Your task to perform on an android device: toggle location history Image 0: 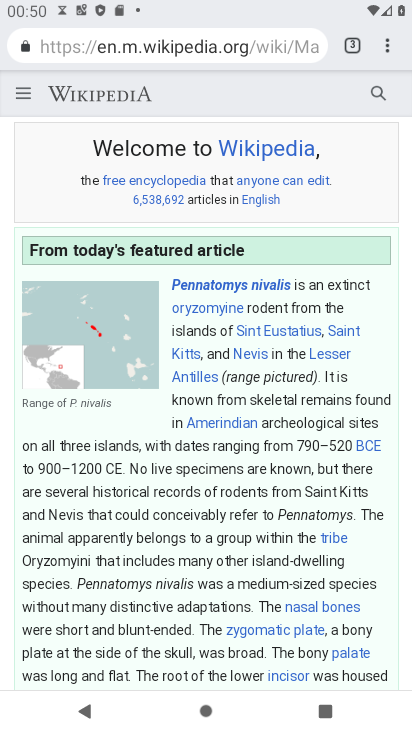
Step 0: press back button
Your task to perform on an android device: toggle location history Image 1: 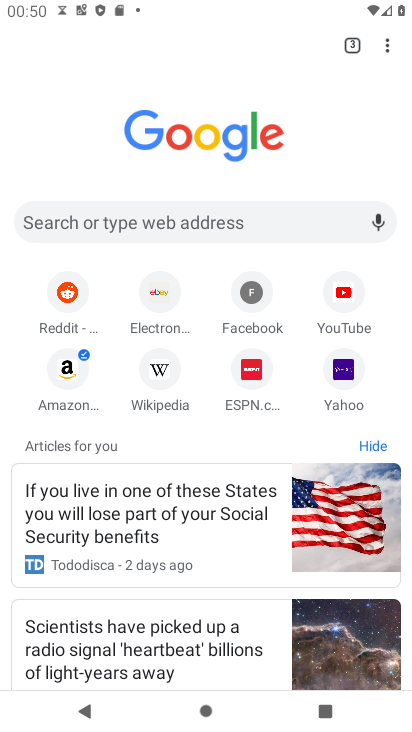
Step 1: press back button
Your task to perform on an android device: toggle location history Image 2: 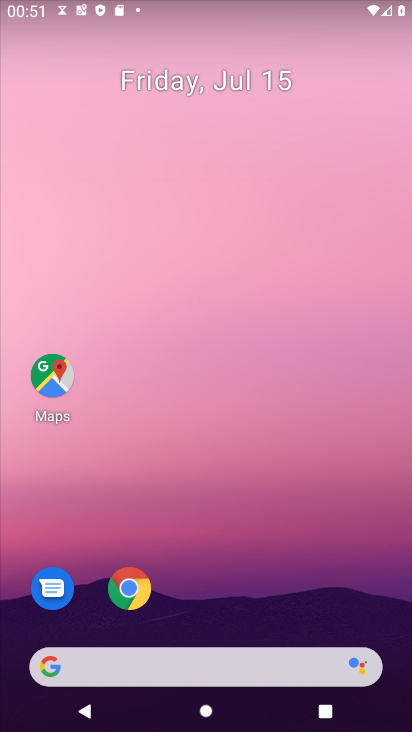
Step 2: drag from (207, 590) to (270, 77)
Your task to perform on an android device: toggle location history Image 3: 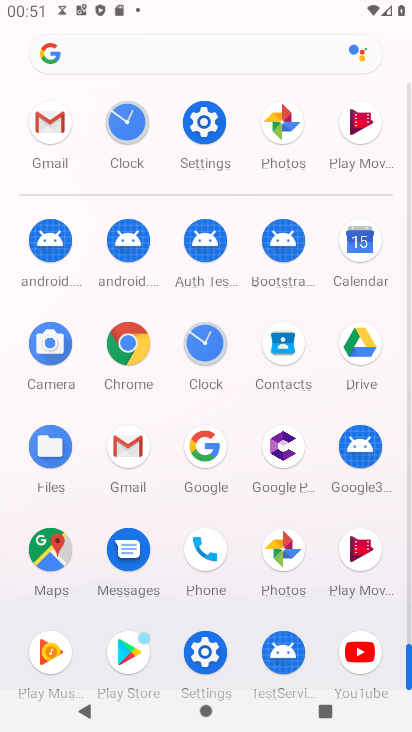
Step 3: click (205, 108)
Your task to perform on an android device: toggle location history Image 4: 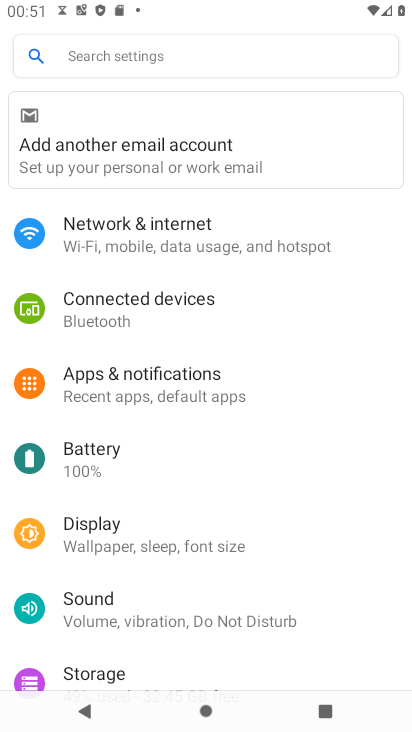
Step 4: drag from (146, 561) to (271, 72)
Your task to perform on an android device: toggle location history Image 5: 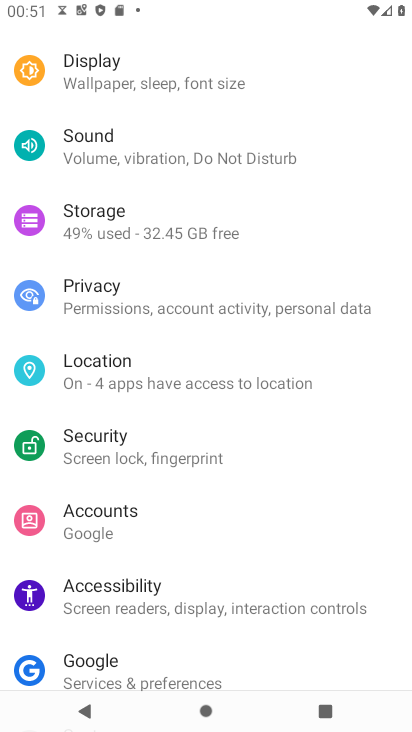
Step 5: click (110, 372)
Your task to perform on an android device: toggle location history Image 6: 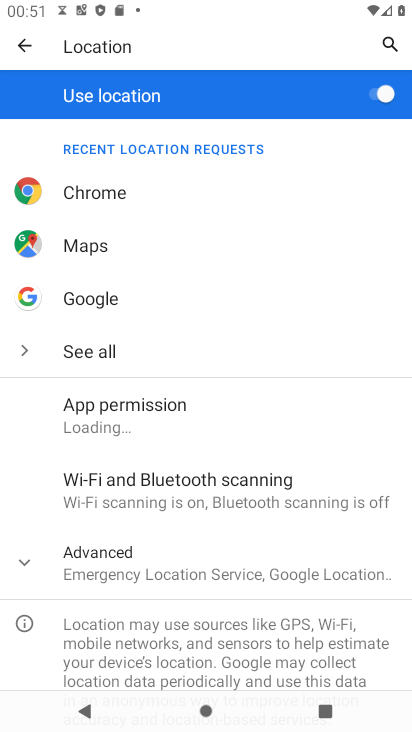
Step 6: click (140, 572)
Your task to perform on an android device: toggle location history Image 7: 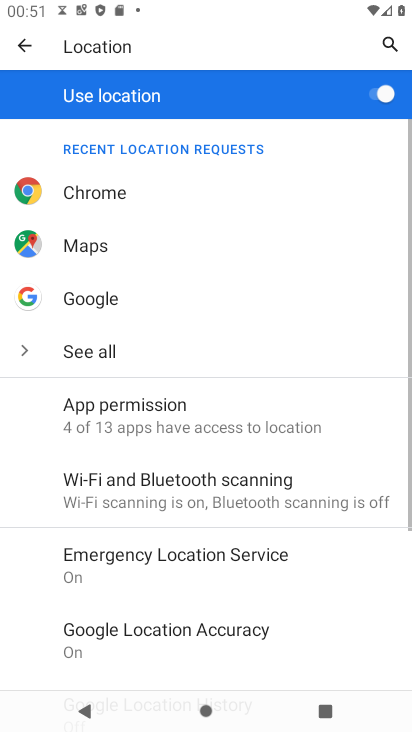
Step 7: drag from (158, 617) to (256, 189)
Your task to perform on an android device: toggle location history Image 8: 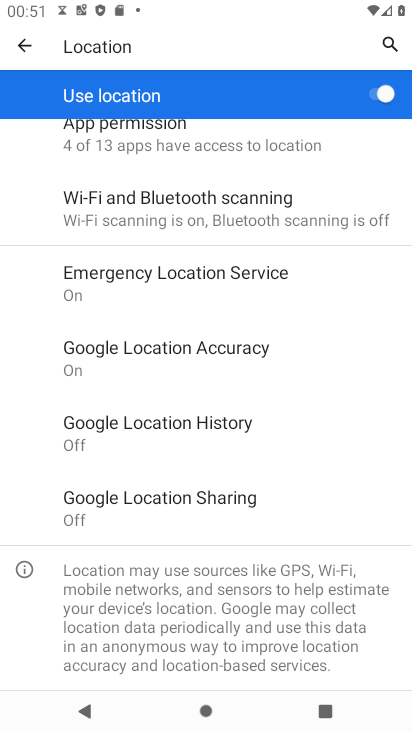
Step 8: click (171, 424)
Your task to perform on an android device: toggle location history Image 9: 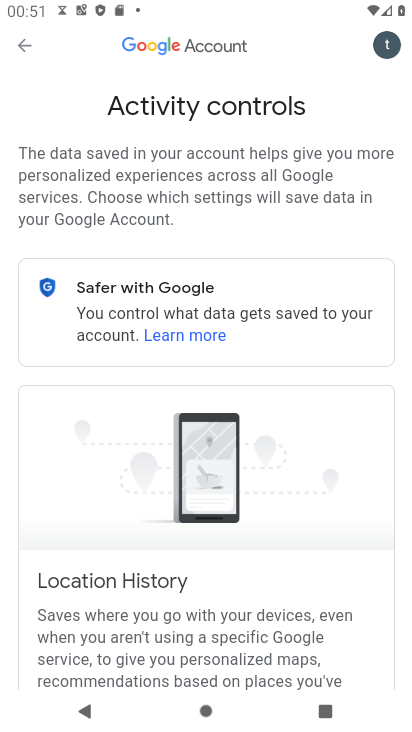
Step 9: drag from (179, 503) to (295, 53)
Your task to perform on an android device: toggle location history Image 10: 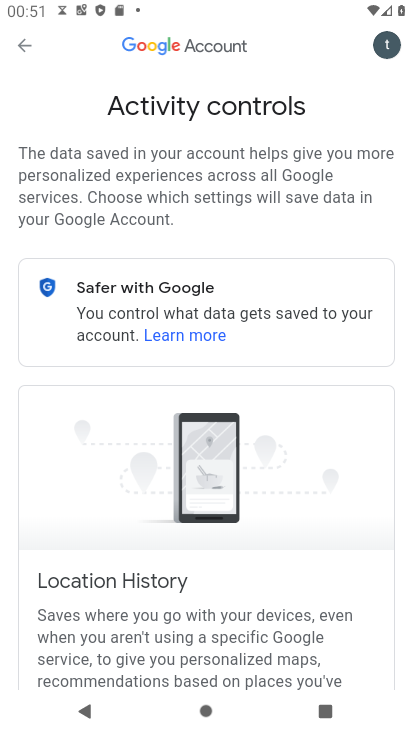
Step 10: drag from (246, 584) to (280, 181)
Your task to perform on an android device: toggle location history Image 11: 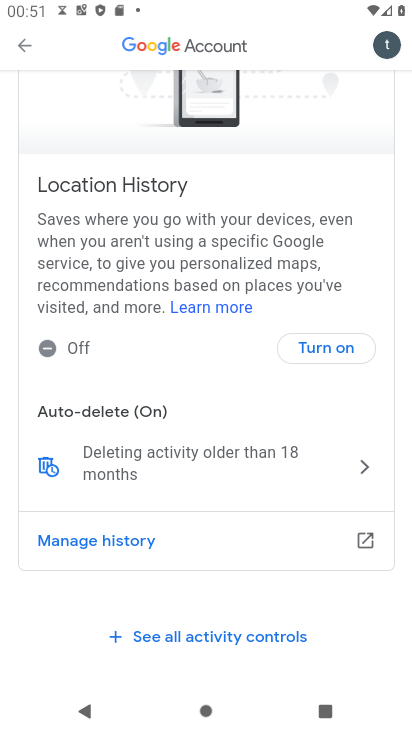
Step 11: click (331, 346)
Your task to perform on an android device: toggle location history Image 12: 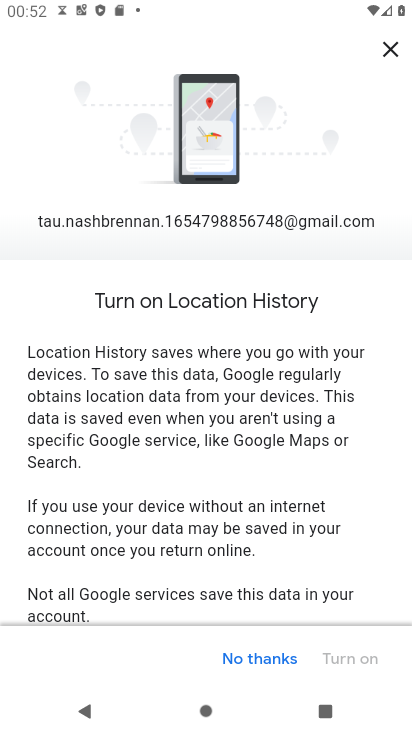
Step 12: click (272, 656)
Your task to perform on an android device: toggle location history Image 13: 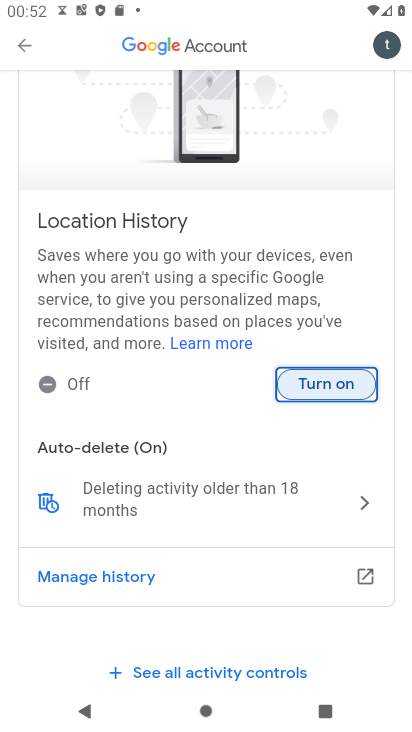
Step 13: drag from (230, 601) to (279, 124)
Your task to perform on an android device: toggle location history Image 14: 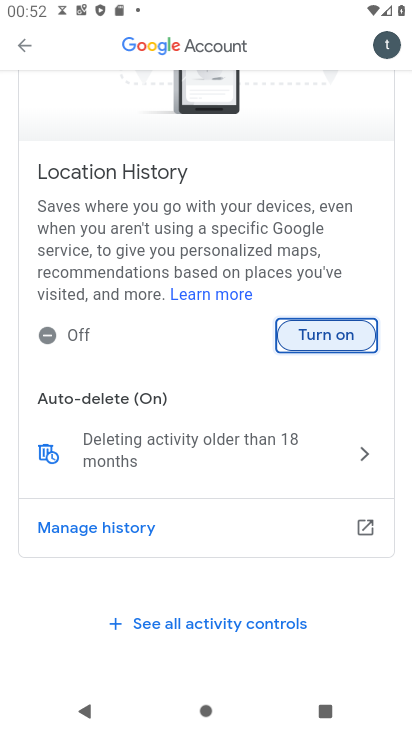
Step 14: click (306, 335)
Your task to perform on an android device: toggle location history Image 15: 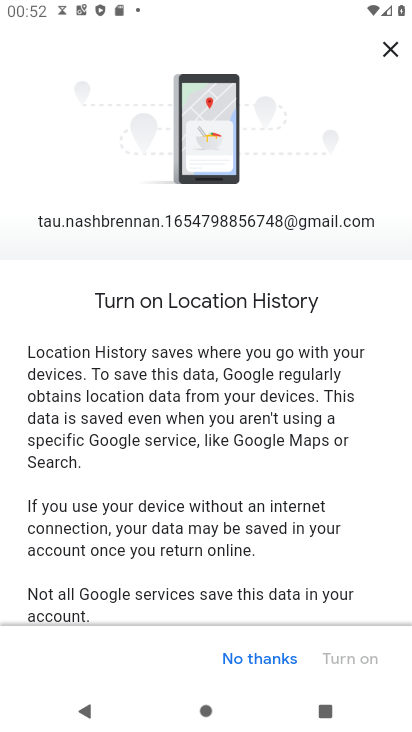
Step 15: drag from (280, 625) to (341, 58)
Your task to perform on an android device: toggle location history Image 16: 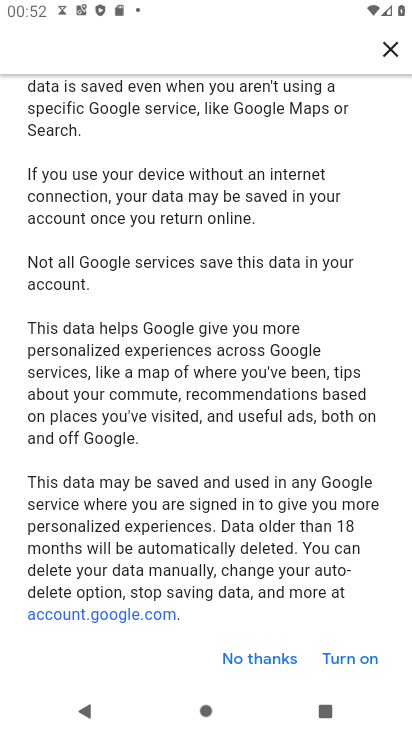
Step 16: click (336, 653)
Your task to perform on an android device: toggle location history Image 17: 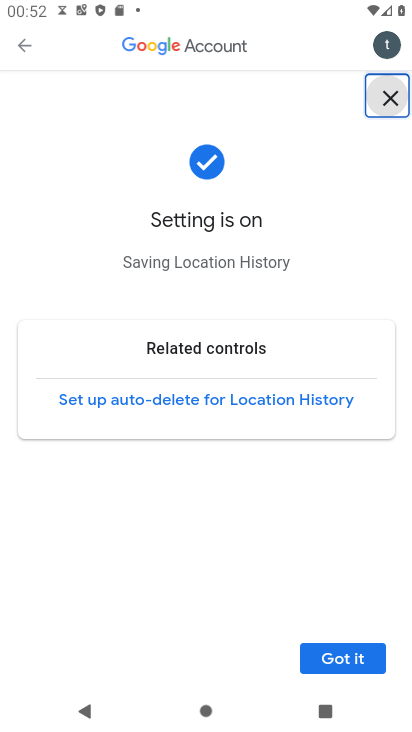
Step 17: click (336, 656)
Your task to perform on an android device: toggle location history Image 18: 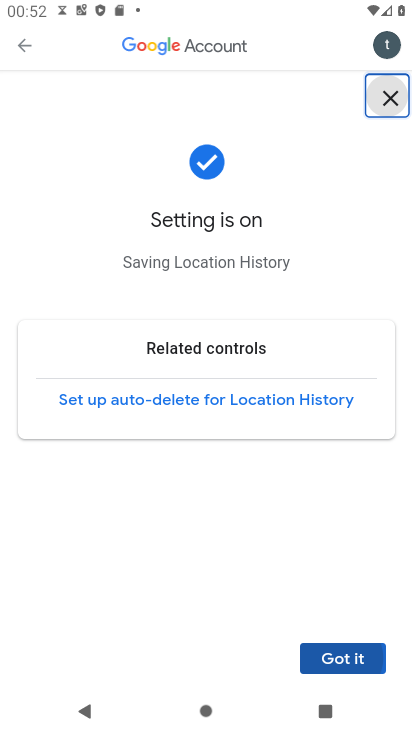
Step 18: task complete